Your task to perform on an android device: Go to Android settings Image 0: 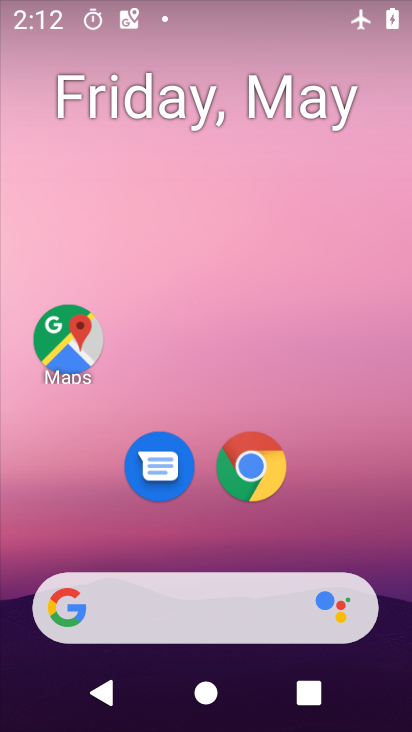
Step 0: drag from (362, 500) to (410, 84)
Your task to perform on an android device: Go to Android settings Image 1: 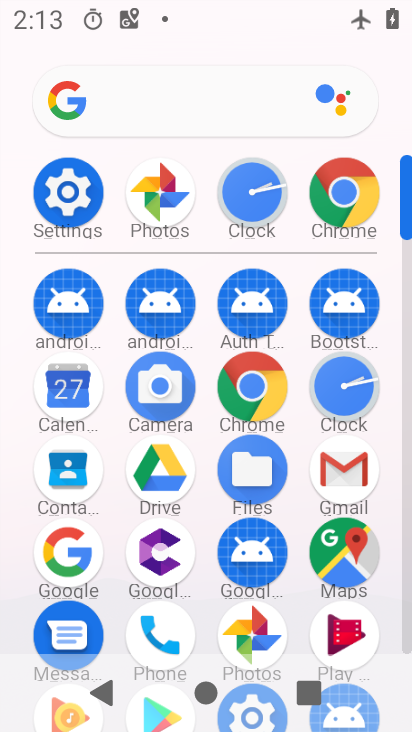
Step 1: click (60, 196)
Your task to perform on an android device: Go to Android settings Image 2: 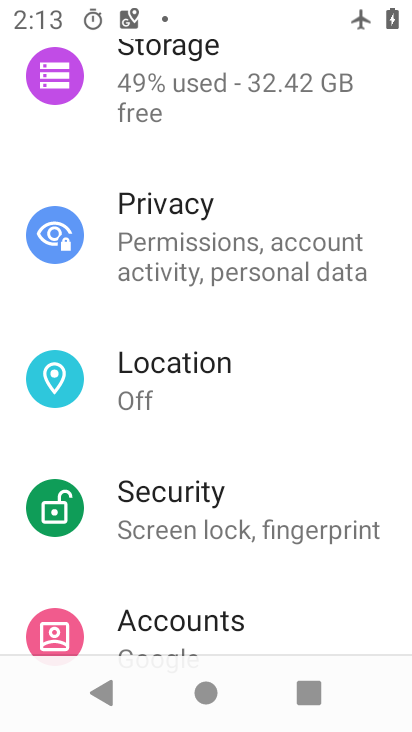
Step 2: task complete